Your task to perform on an android device: toggle wifi Image 0: 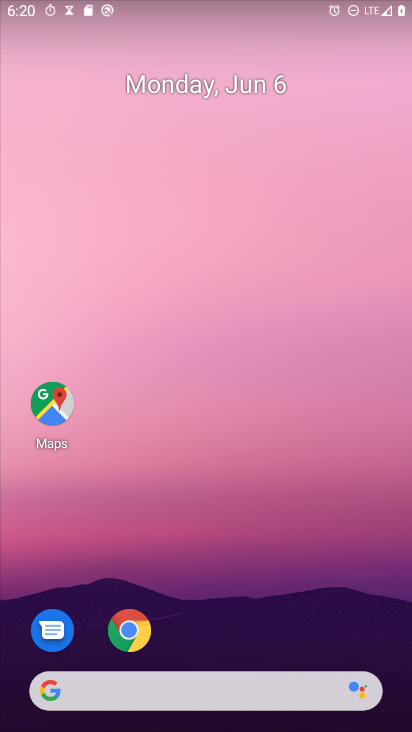
Step 0: drag from (285, 491) to (283, 44)
Your task to perform on an android device: toggle wifi Image 1: 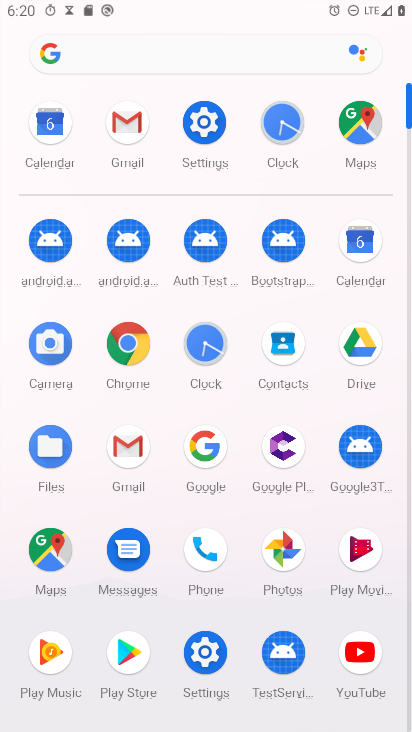
Step 1: click (208, 130)
Your task to perform on an android device: toggle wifi Image 2: 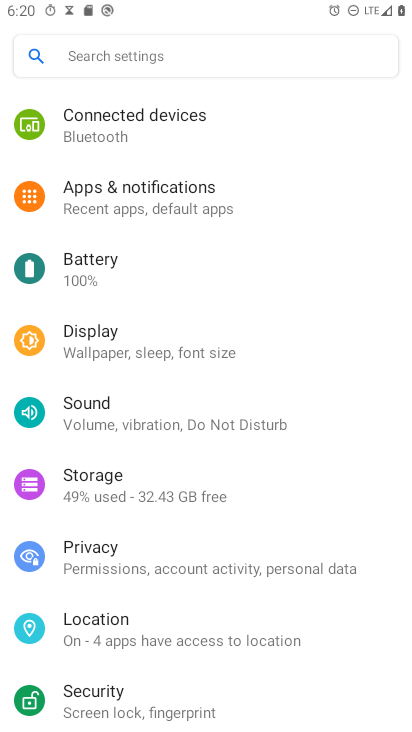
Step 2: drag from (242, 151) to (226, 704)
Your task to perform on an android device: toggle wifi Image 3: 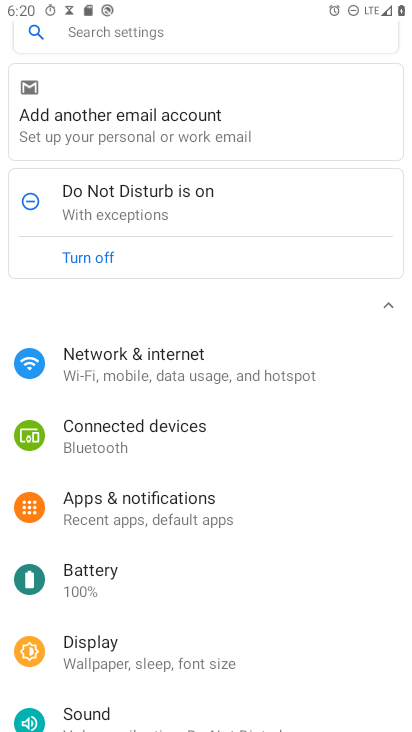
Step 3: click (175, 368)
Your task to perform on an android device: toggle wifi Image 4: 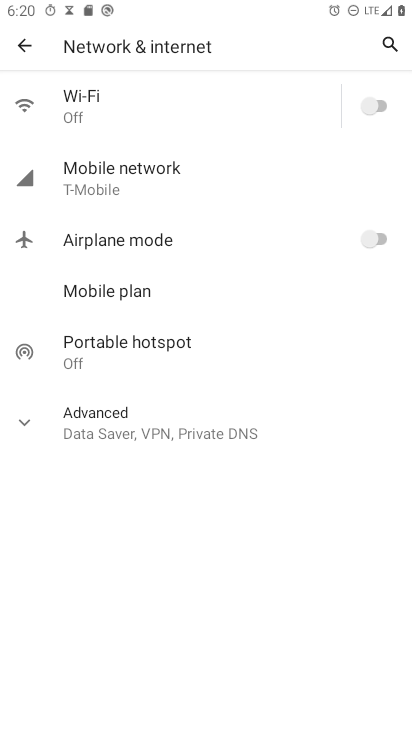
Step 4: click (381, 103)
Your task to perform on an android device: toggle wifi Image 5: 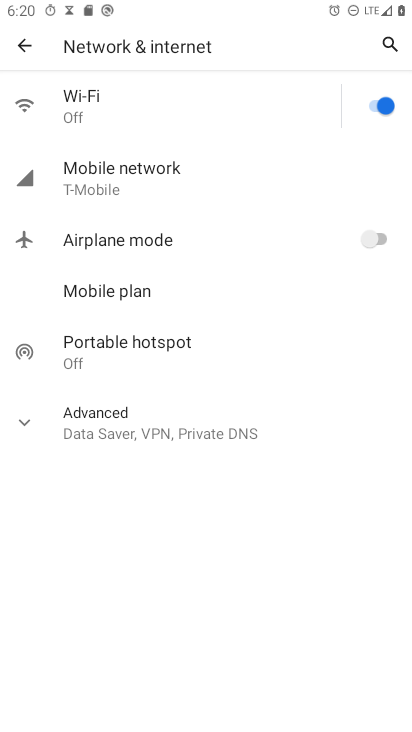
Step 5: task complete